Your task to perform on an android device: Open sound settings Image 0: 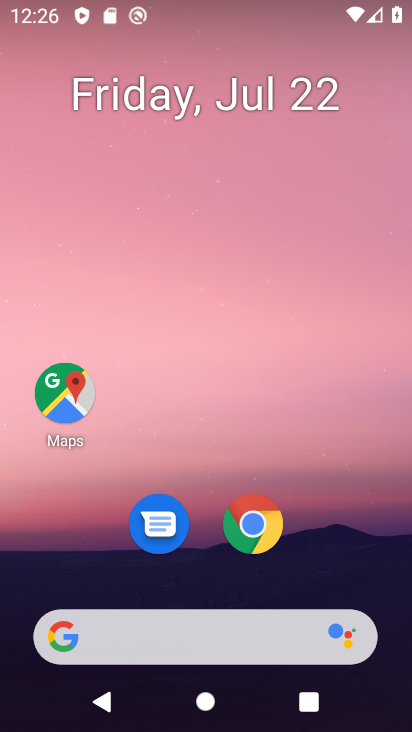
Step 0: drag from (237, 627) to (348, 55)
Your task to perform on an android device: Open sound settings Image 1: 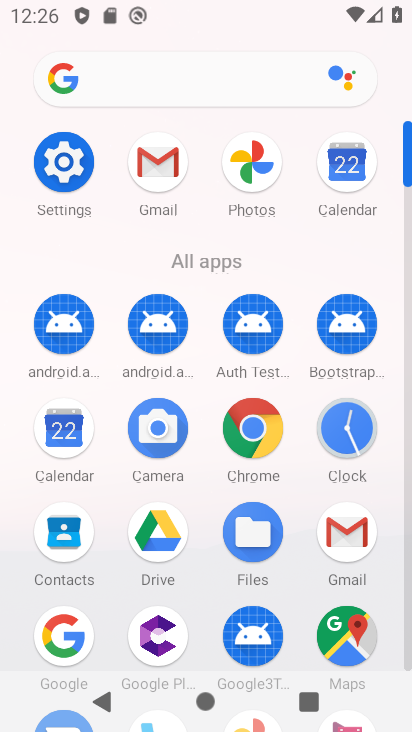
Step 1: click (61, 166)
Your task to perform on an android device: Open sound settings Image 2: 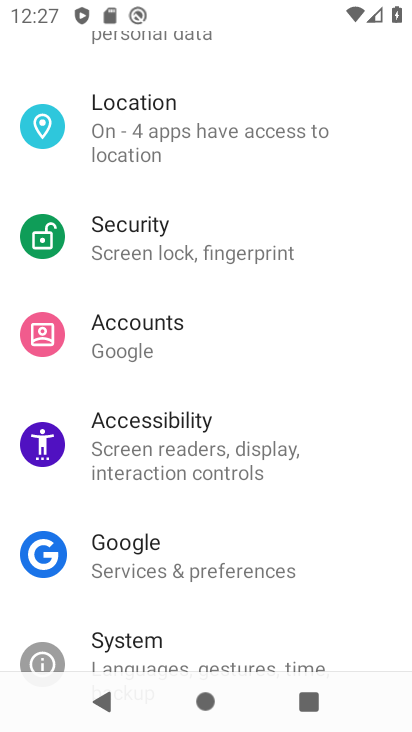
Step 2: drag from (327, 68) to (318, 568)
Your task to perform on an android device: Open sound settings Image 3: 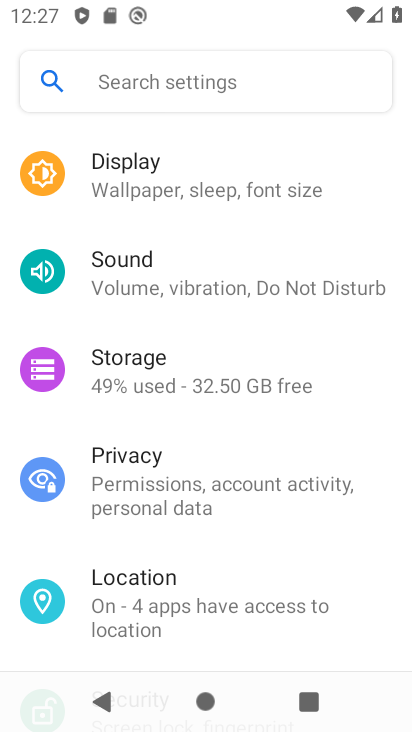
Step 3: click (147, 276)
Your task to perform on an android device: Open sound settings Image 4: 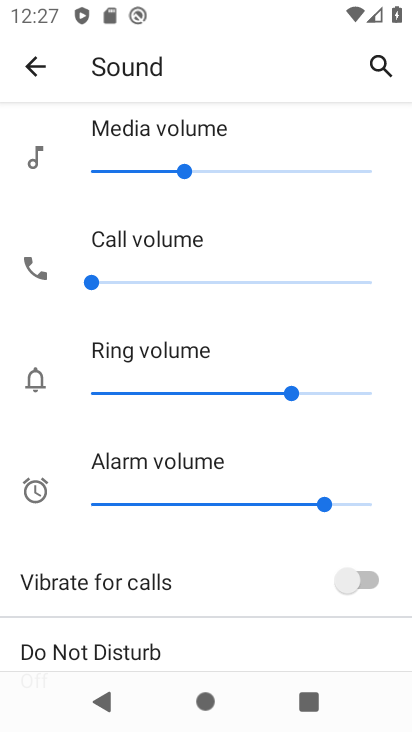
Step 4: task complete